Your task to perform on an android device: allow cookies in the chrome app Image 0: 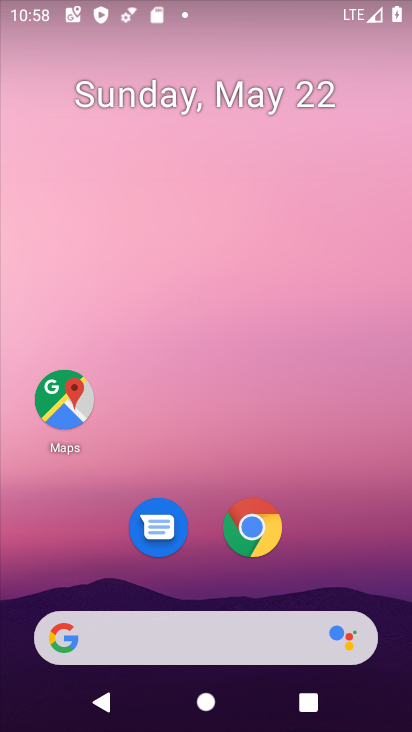
Step 0: click (262, 545)
Your task to perform on an android device: allow cookies in the chrome app Image 1: 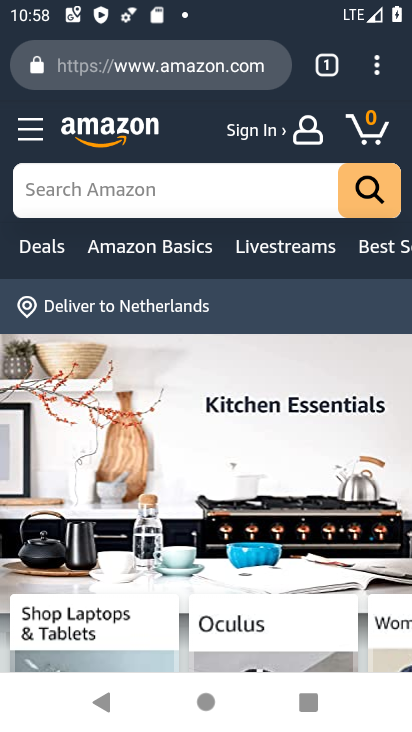
Step 1: click (384, 78)
Your task to perform on an android device: allow cookies in the chrome app Image 2: 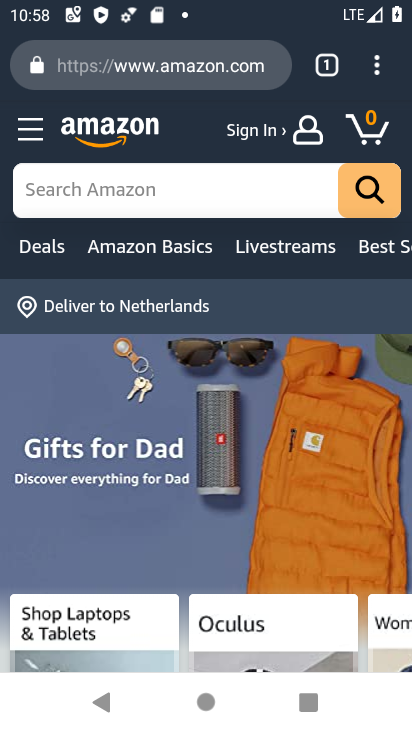
Step 2: click (384, 78)
Your task to perform on an android device: allow cookies in the chrome app Image 3: 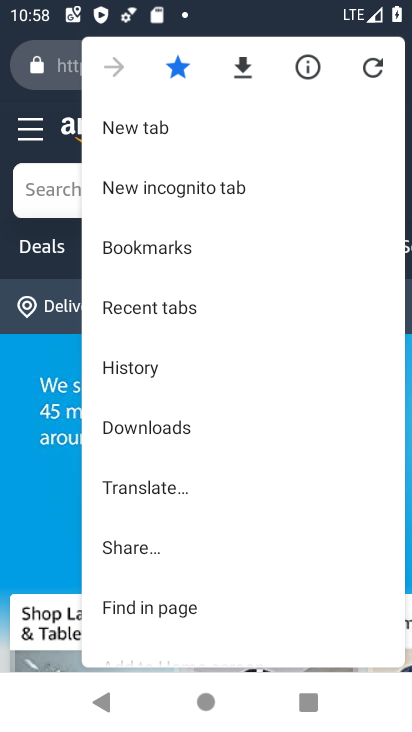
Step 3: drag from (241, 585) to (267, 286)
Your task to perform on an android device: allow cookies in the chrome app Image 4: 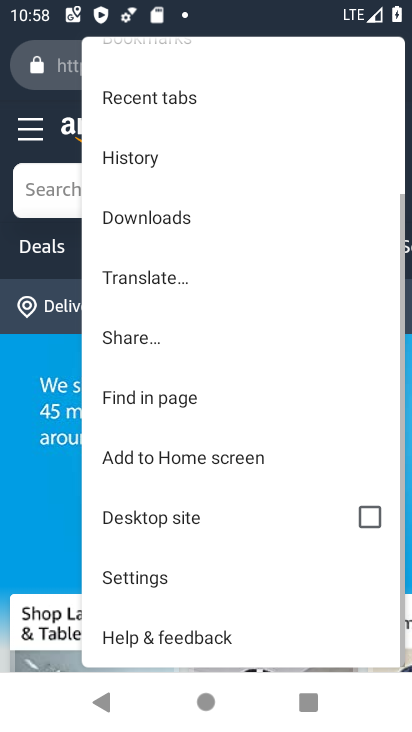
Step 4: click (189, 575)
Your task to perform on an android device: allow cookies in the chrome app Image 5: 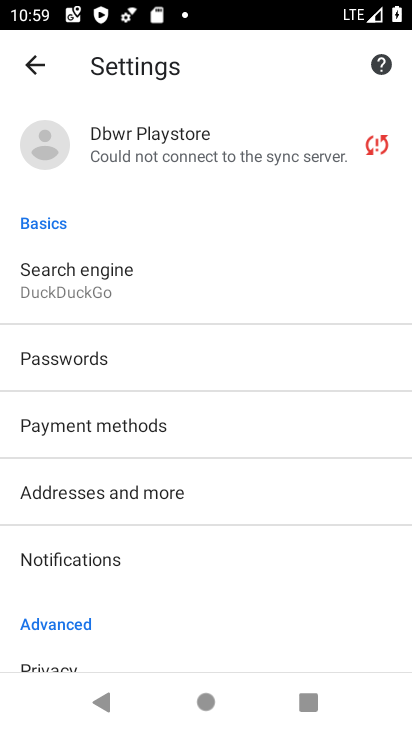
Step 5: drag from (157, 581) to (163, 397)
Your task to perform on an android device: allow cookies in the chrome app Image 6: 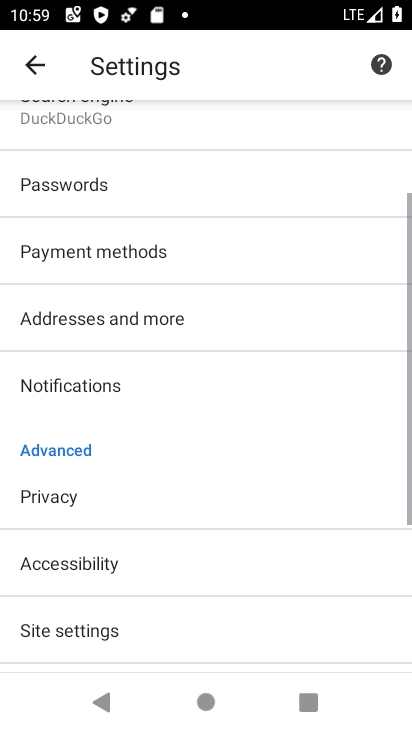
Step 6: click (163, 397)
Your task to perform on an android device: allow cookies in the chrome app Image 7: 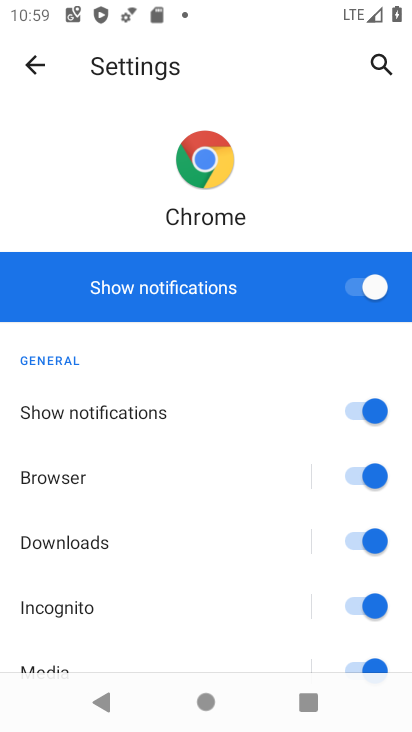
Step 7: task complete